Your task to perform on an android device: snooze an email in the gmail app Image 0: 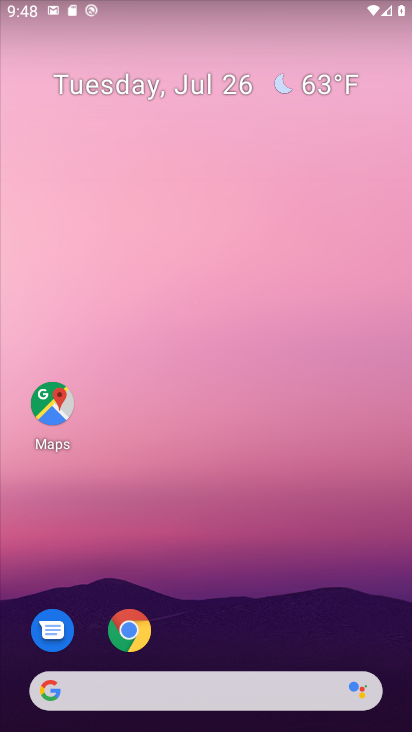
Step 0: press home button
Your task to perform on an android device: snooze an email in the gmail app Image 1: 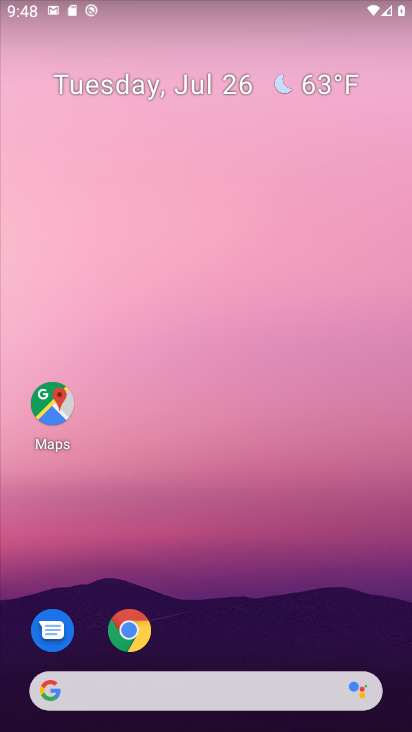
Step 1: drag from (212, 655) to (237, 91)
Your task to perform on an android device: snooze an email in the gmail app Image 2: 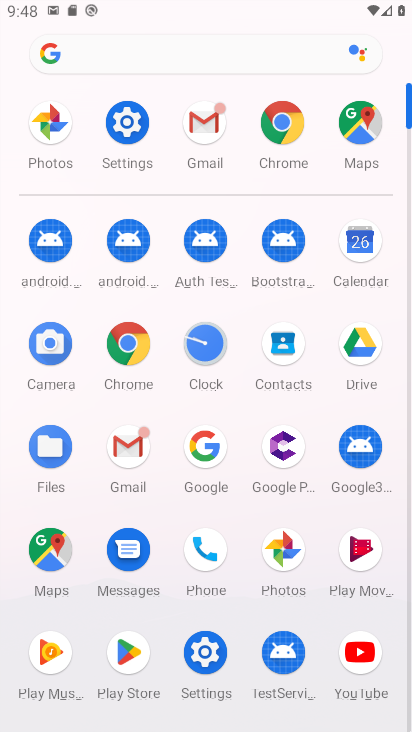
Step 2: click (198, 119)
Your task to perform on an android device: snooze an email in the gmail app Image 3: 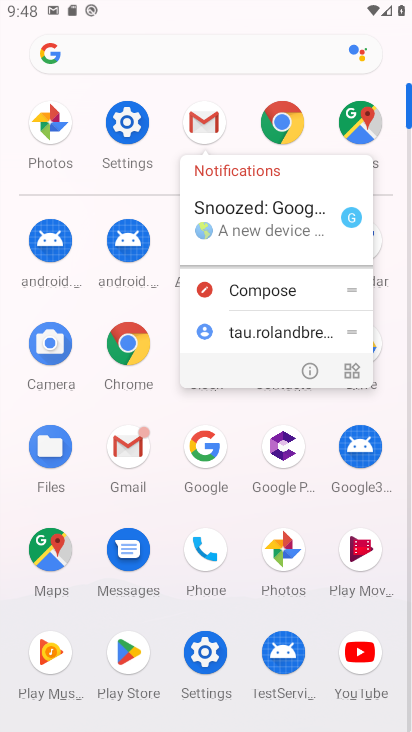
Step 3: click (209, 119)
Your task to perform on an android device: snooze an email in the gmail app Image 4: 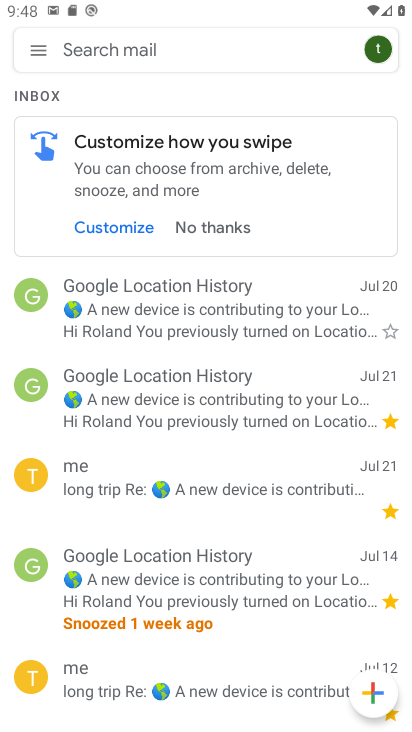
Step 4: click (33, 298)
Your task to perform on an android device: snooze an email in the gmail app Image 5: 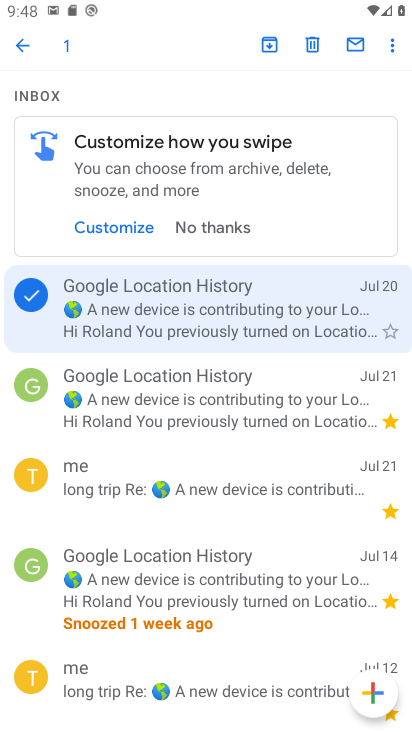
Step 5: click (391, 42)
Your task to perform on an android device: snooze an email in the gmail app Image 6: 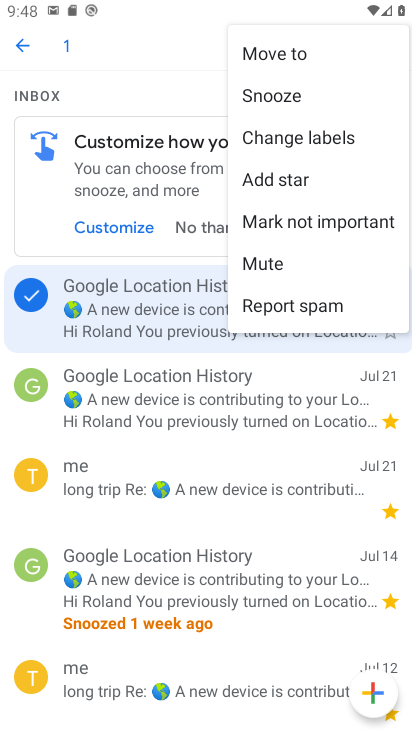
Step 6: click (308, 92)
Your task to perform on an android device: snooze an email in the gmail app Image 7: 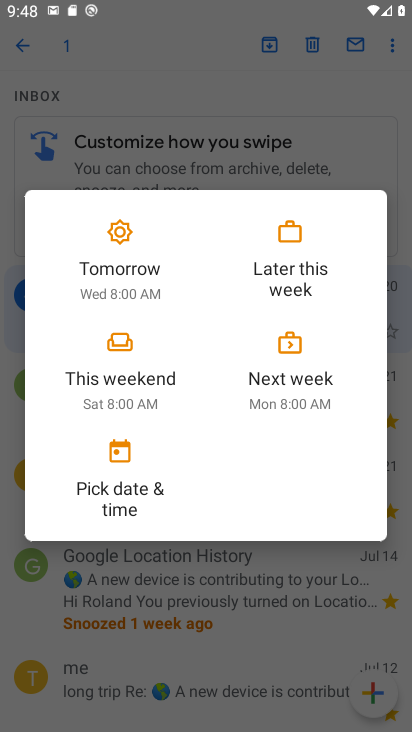
Step 7: click (301, 370)
Your task to perform on an android device: snooze an email in the gmail app Image 8: 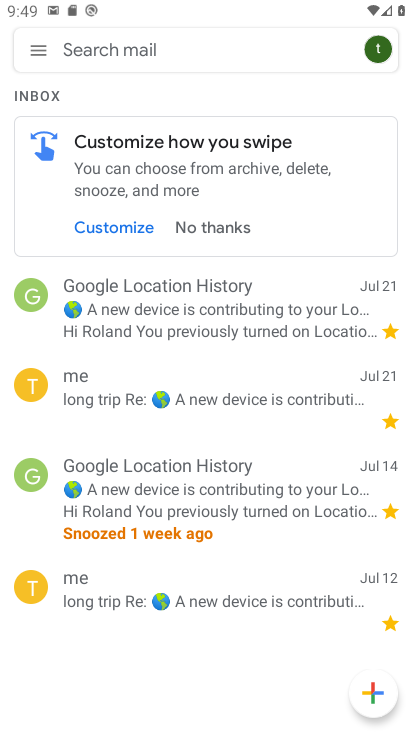
Step 8: task complete